Your task to perform on an android device: turn on the 24-hour format for clock Image 0: 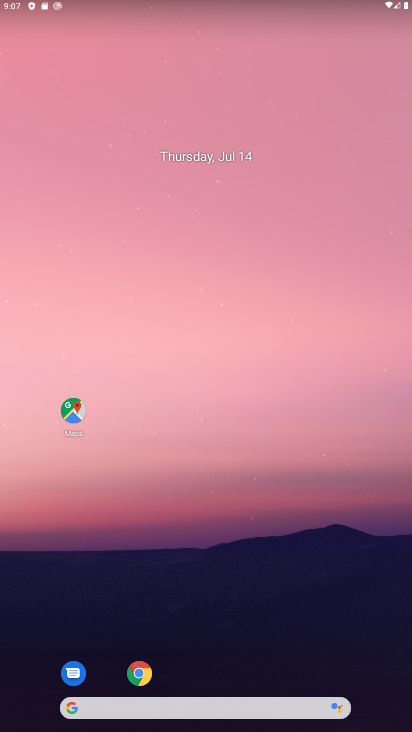
Step 0: drag from (343, 669) to (256, 79)
Your task to perform on an android device: turn on the 24-hour format for clock Image 1: 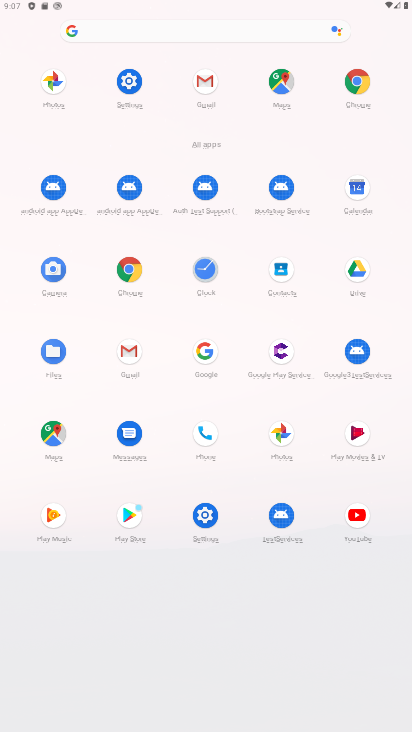
Step 1: click (206, 270)
Your task to perform on an android device: turn on the 24-hour format for clock Image 2: 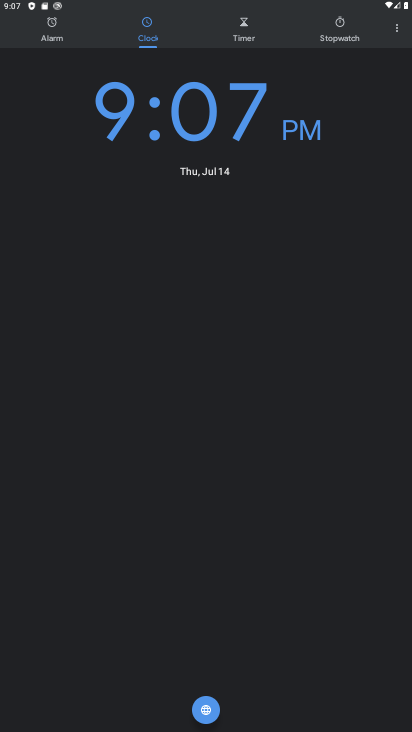
Step 2: click (397, 29)
Your task to perform on an android device: turn on the 24-hour format for clock Image 3: 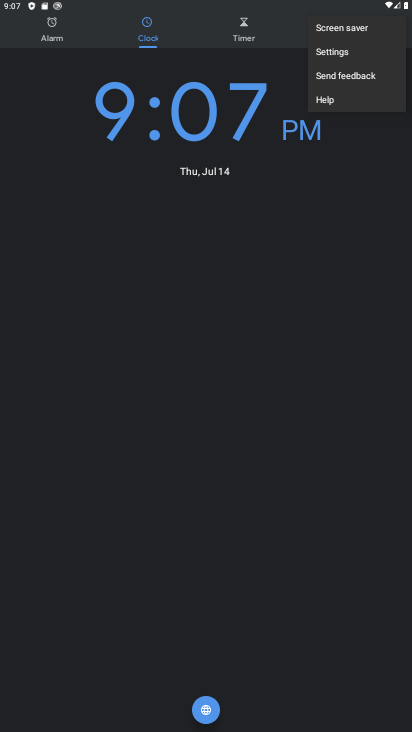
Step 3: click (383, 58)
Your task to perform on an android device: turn on the 24-hour format for clock Image 4: 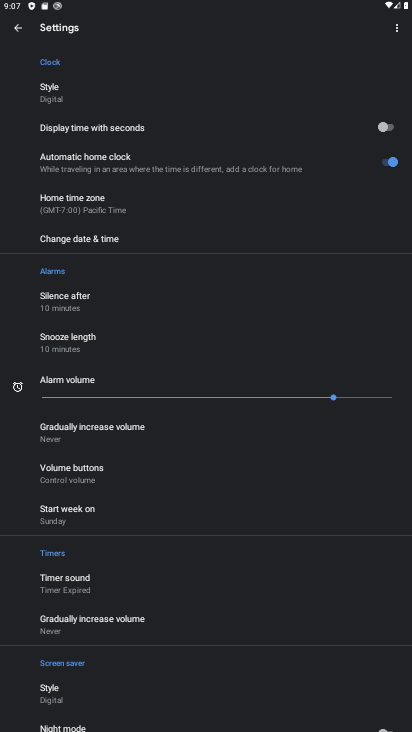
Step 4: click (191, 239)
Your task to perform on an android device: turn on the 24-hour format for clock Image 5: 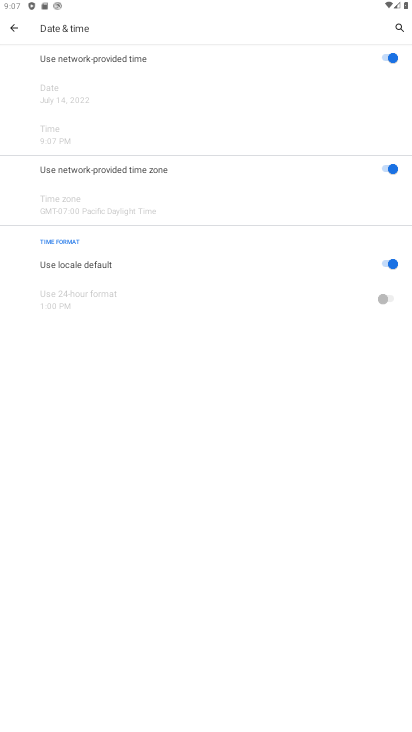
Step 5: click (386, 268)
Your task to perform on an android device: turn on the 24-hour format for clock Image 6: 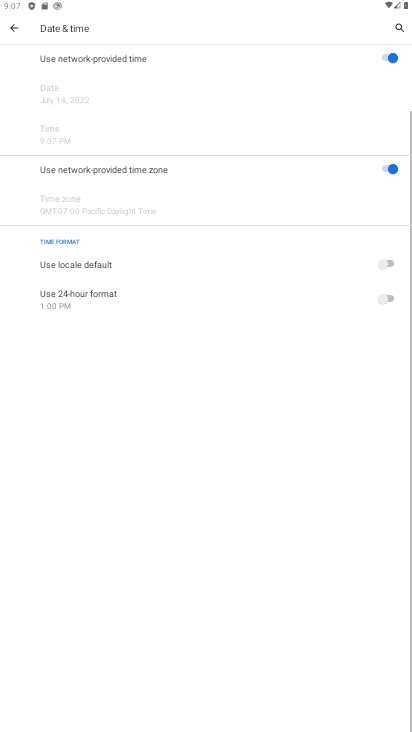
Step 6: click (386, 294)
Your task to perform on an android device: turn on the 24-hour format for clock Image 7: 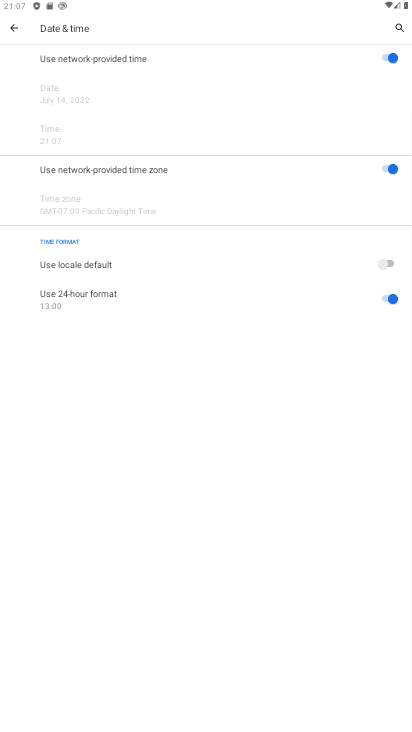
Step 7: task complete